Your task to perform on an android device: Show the shopping cart on ebay.com. Add "razer blackwidow" to the cart on ebay.com Image 0: 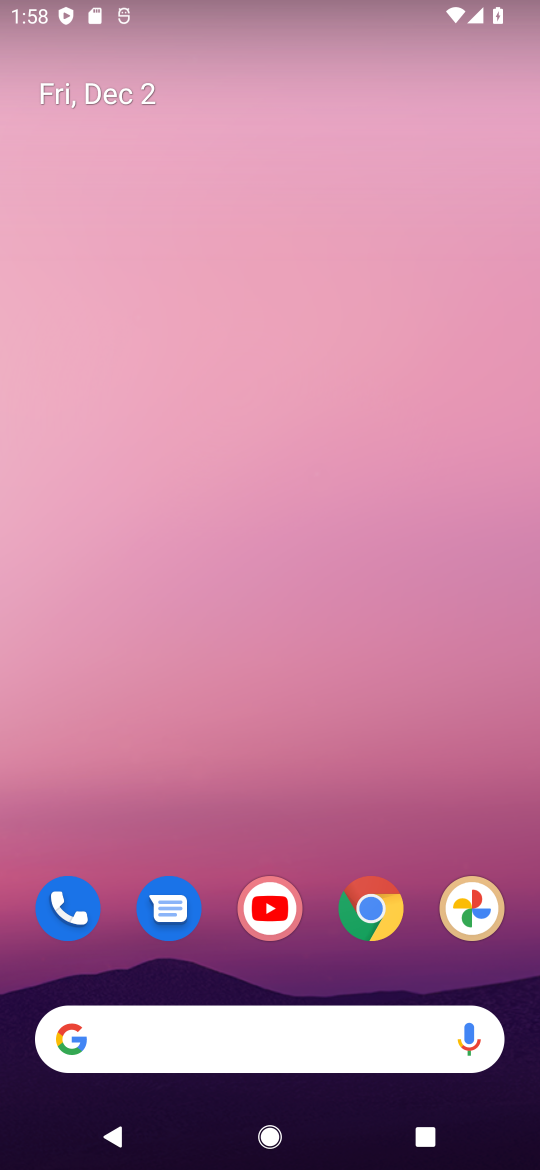
Step 0: drag from (159, 1006) to (163, 400)
Your task to perform on an android device: Show the shopping cart on ebay.com. Add "razer blackwidow" to the cart on ebay.com Image 1: 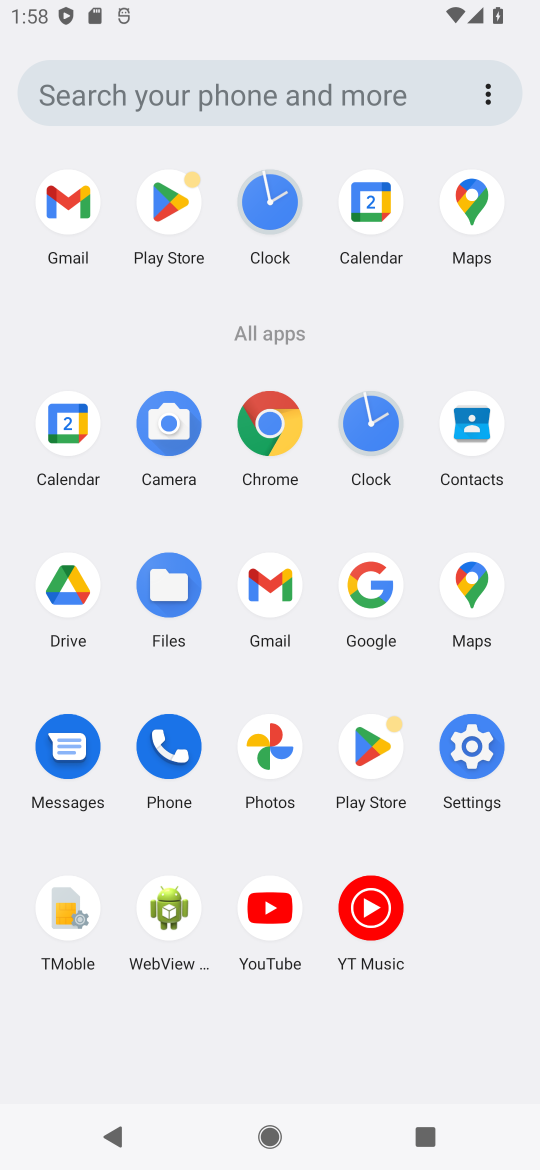
Step 1: click (366, 580)
Your task to perform on an android device: Show the shopping cart on ebay.com. Add "razer blackwidow" to the cart on ebay.com Image 2: 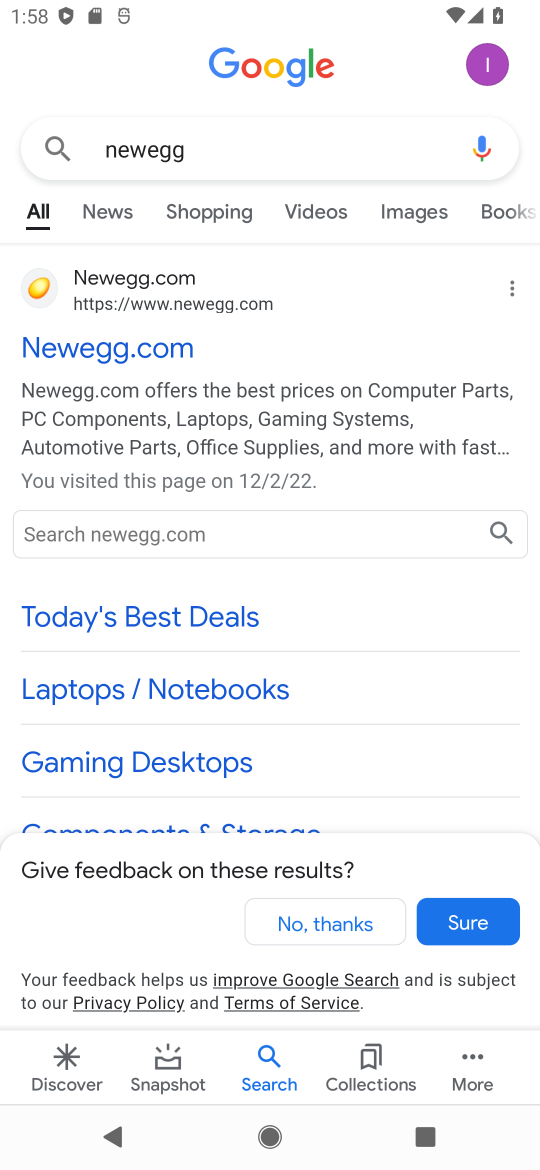
Step 2: click (155, 147)
Your task to perform on an android device: Show the shopping cart on ebay.com. Add "razer blackwidow" to the cart on ebay.com Image 3: 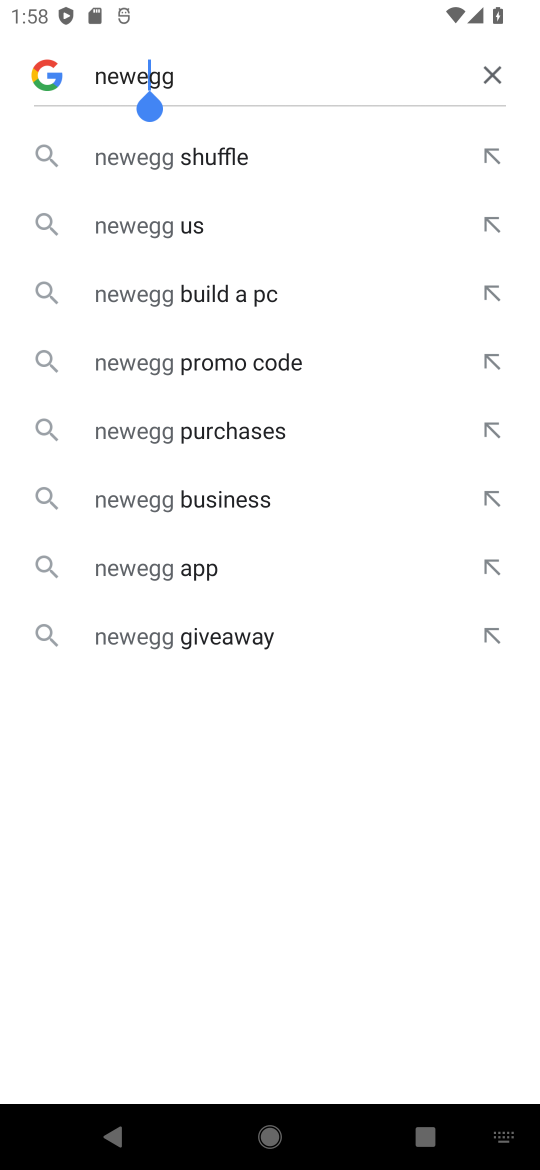
Step 3: click (494, 79)
Your task to perform on an android device: Show the shopping cart on ebay.com. Add "razer blackwidow" to the cart on ebay.com Image 4: 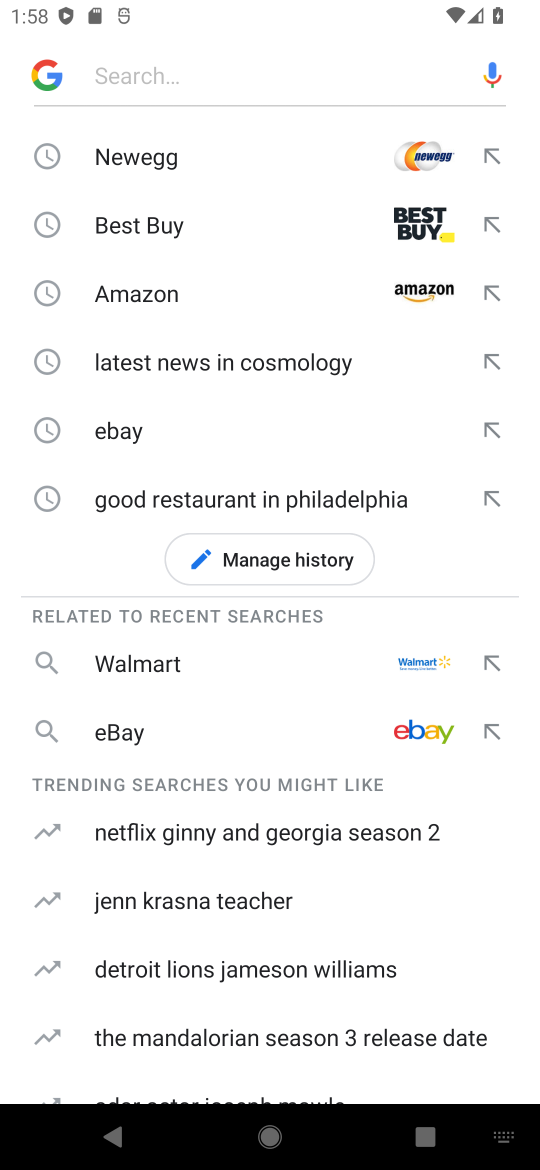
Step 4: click (143, 428)
Your task to perform on an android device: Show the shopping cart on ebay.com. Add "razer blackwidow" to the cart on ebay.com Image 5: 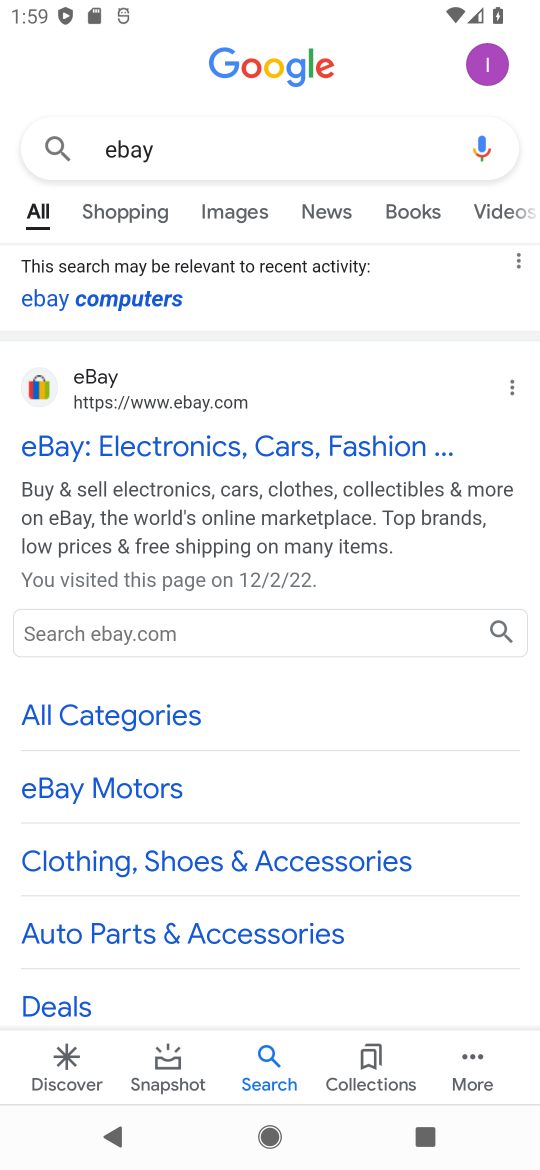
Step 5: click (173, 446)
Your task to perform on an android device: Show the shopping cart on ebay.com. Add "razer blackwidow" to the cart on ebay.com Image 6: 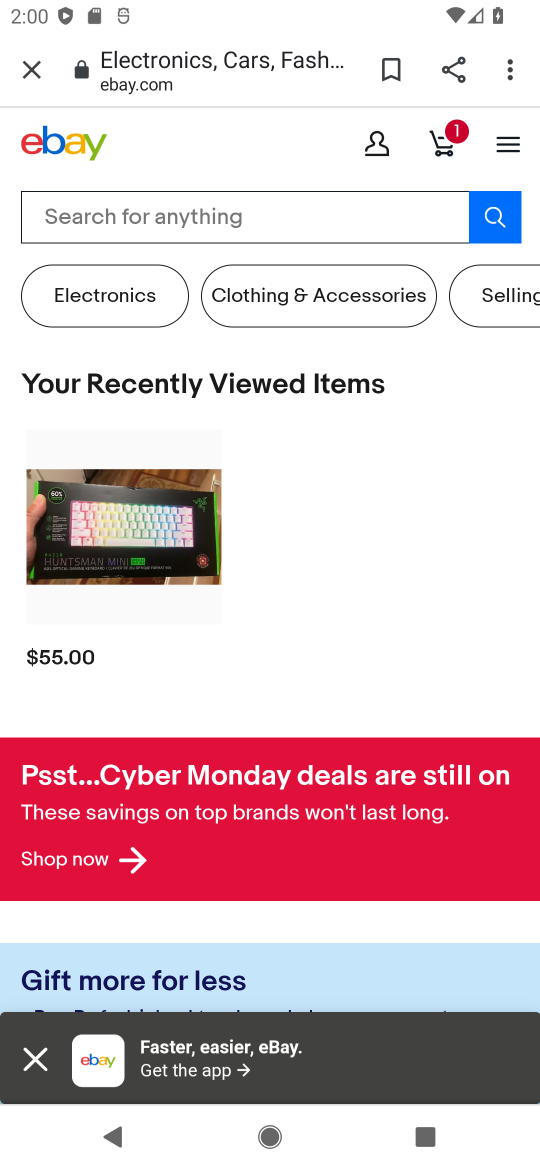
Step 6: type "razer blackwidow"
Your task to perform on an android device: Show the shopping cart on ebay.com. Add "razer blackwidow" to the cart on ebay.com Image 7: 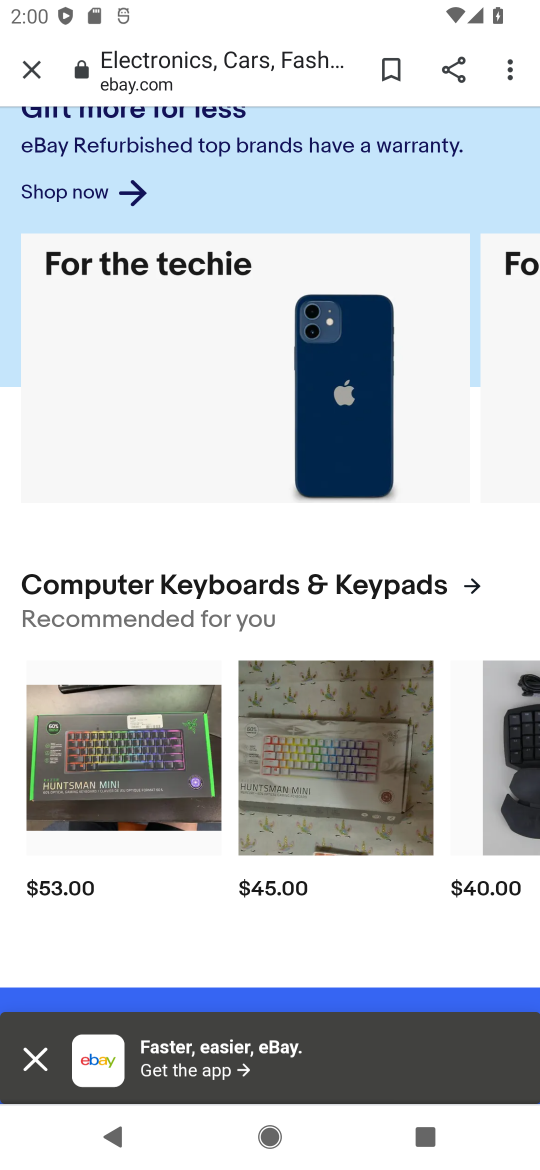
Step 7: drag from (247, 247) to (316, 649)
Your task to perform on an android device: Show the shopping cart on ebay.com. Add "razer blackwidow" to the cart on ebay.com Image 8: 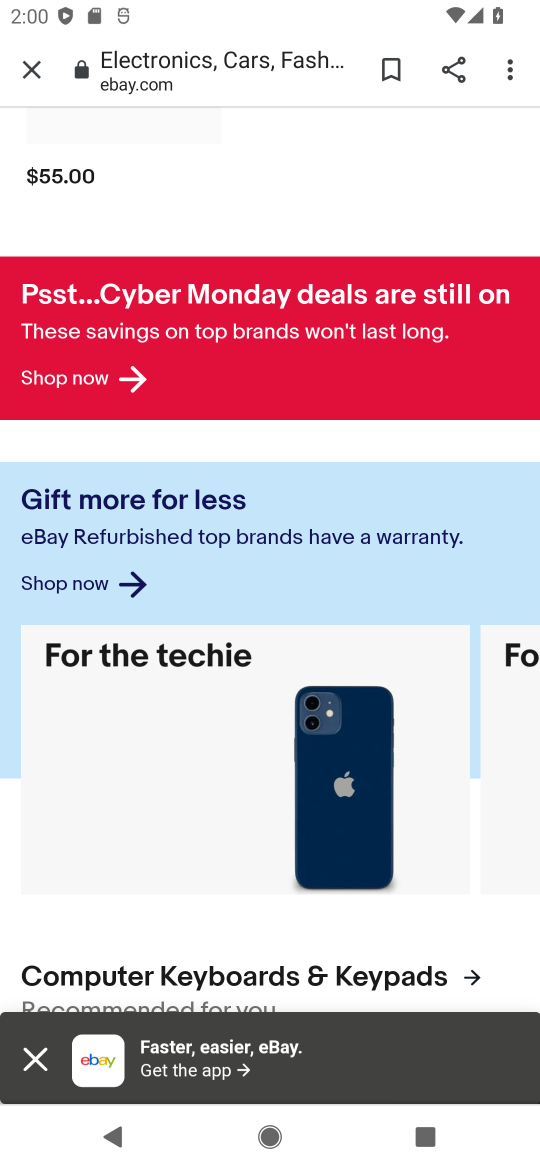
Step 8: drag from (210, 178) to (252, 589)
Your task to perform on an android device: Show the shopping cart on ebay.com. Add "razer blackwidow" to the cart on ebay.com Image 9: 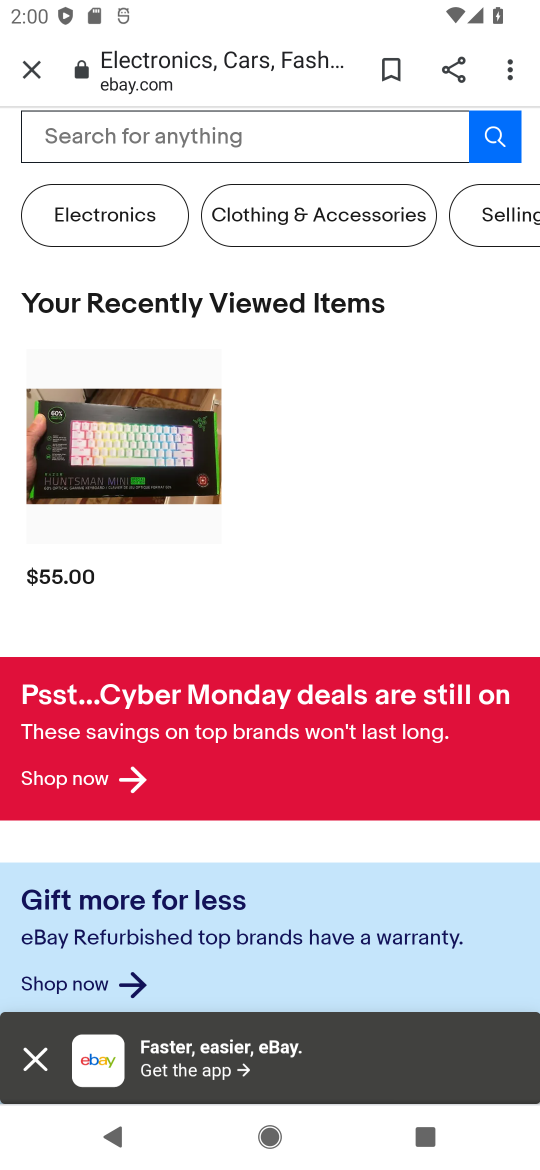
Step 9: click (208, 140)
Your task to perform on an android device: Show the shopping cart on ebay.com. Add "razer blackwidow" to the cart on ebay.com Image 10: 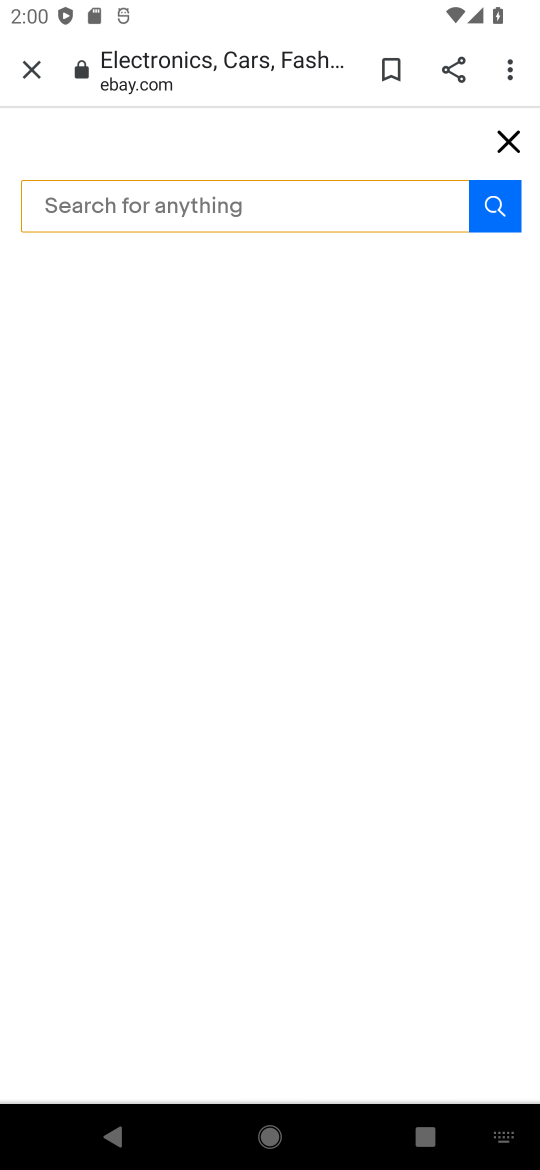
Step 10: type "razer blackwidow"
Your task to perform on an android device: Show the shopping cart on ebay.com. Add "razer blackwidow" to the cart on ebay.com Image 11: 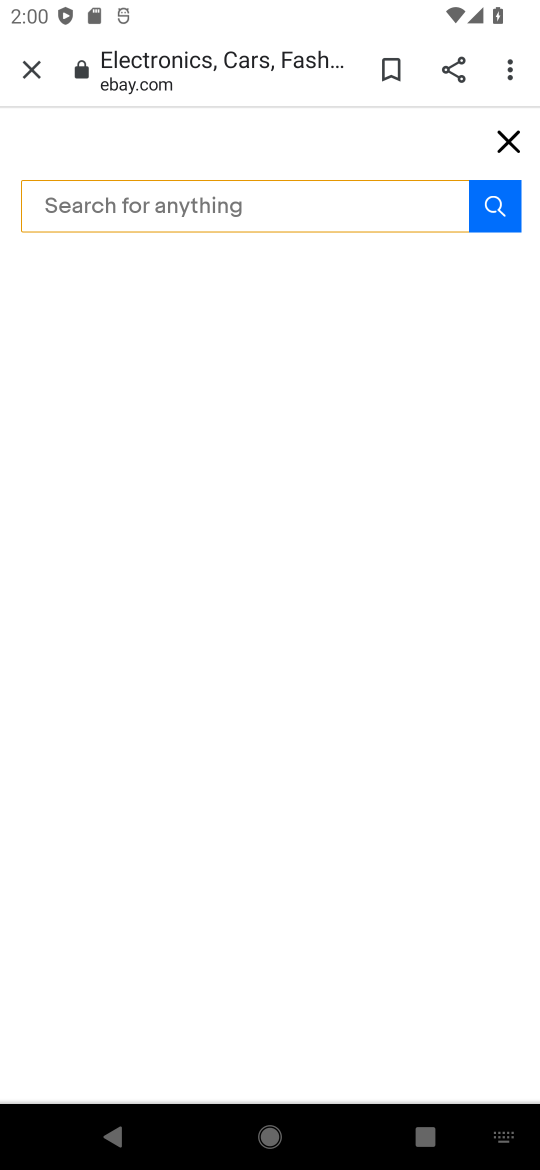
Step 11: click (483, 214)
Your task to perform on an android device: Show the shopping cart on ebay.com. Add "razer blackwidow" to the cart on ebay.com Image 12: 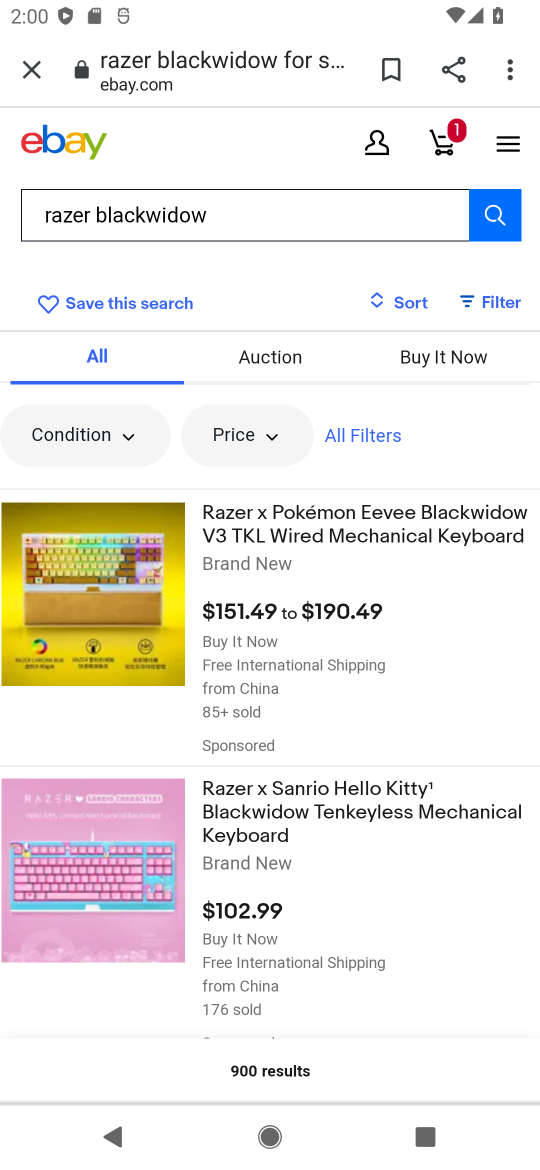
Step 12: click (232, 558)
Your task to perform on an android device: Show the shopping cart on ebay.com. Add "razer blackwidow" to the cart on ebay.com Image 13: 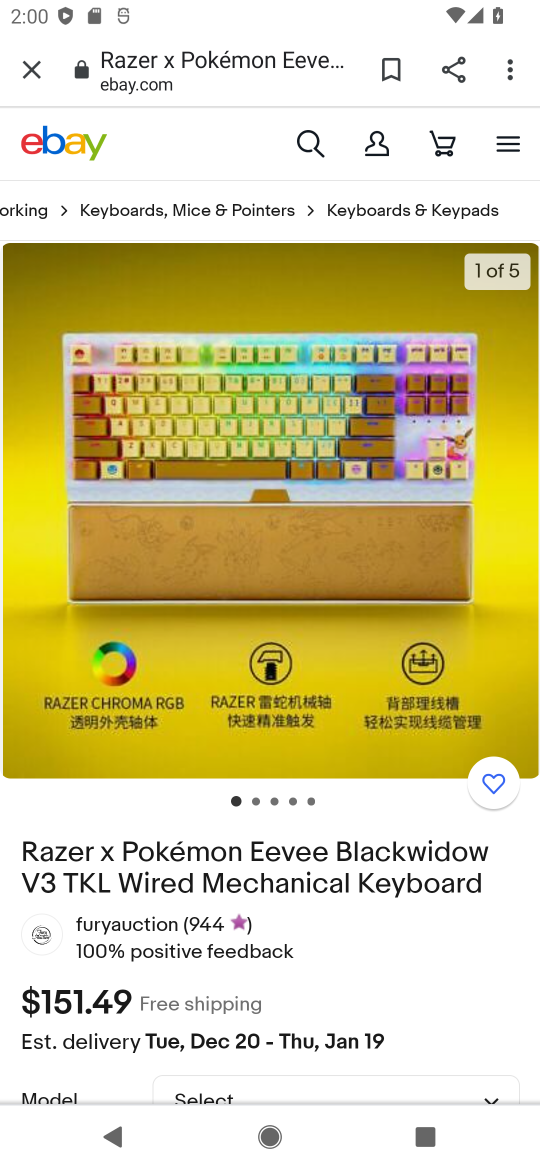
Step 13: drag from (316, 788) to (297, 414)
Your task to perform on an android device: Show the shopping cart on ebay.com. Add "razer blackwidow" to the cart on ebay.com Image 14: 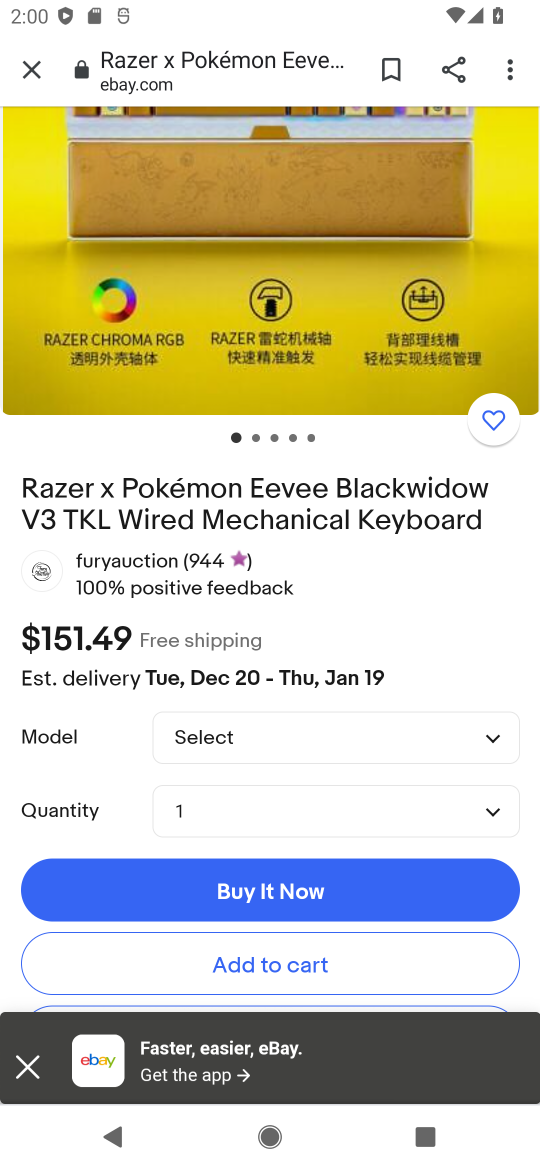
Step 14: click (301, 969)
Your task to perform on an android device: Show the shopping cart on ebay.com. Add "razer blackwidow" to the cart on ebay.com Image 15: 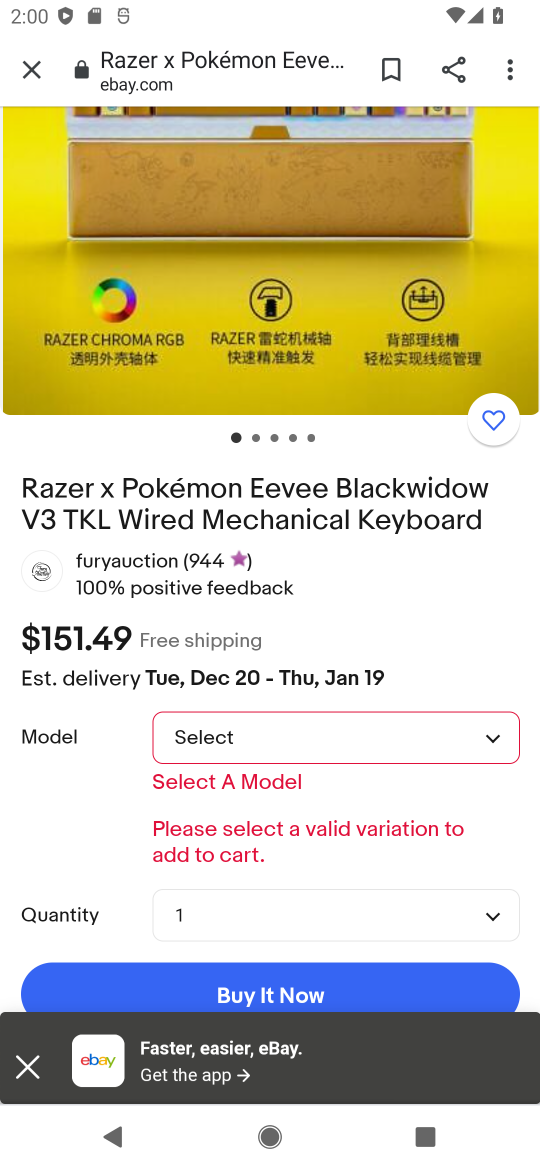
Step 15: task complete